Your task to perform on an android device: Open the phone app and click the voicemail tab. Image 0: 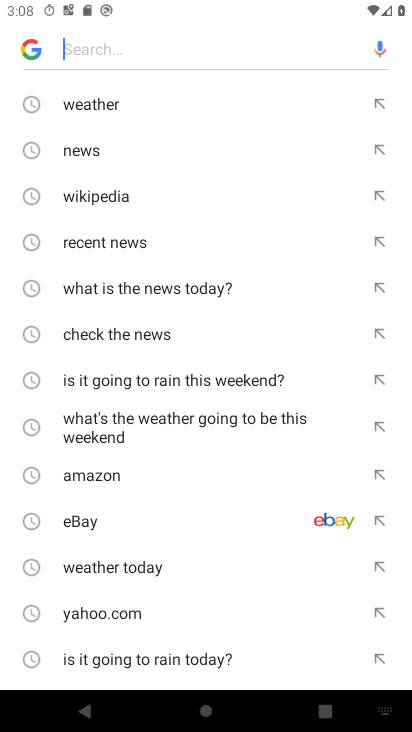
Step 0: press home button
Your task to perform on an android device: Open the phone app and click the voicemail tab. Image 1: 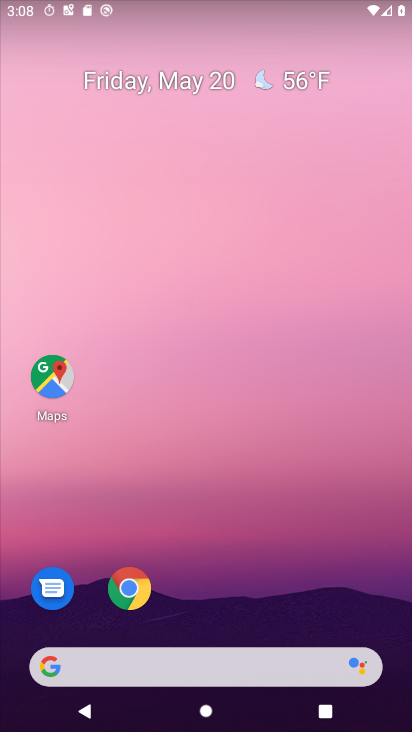
Step 1: drag from (67, 419) to (225, 175)
Your task to perform on an android device: Open the phone app and click the voicemail tab. Image 2: 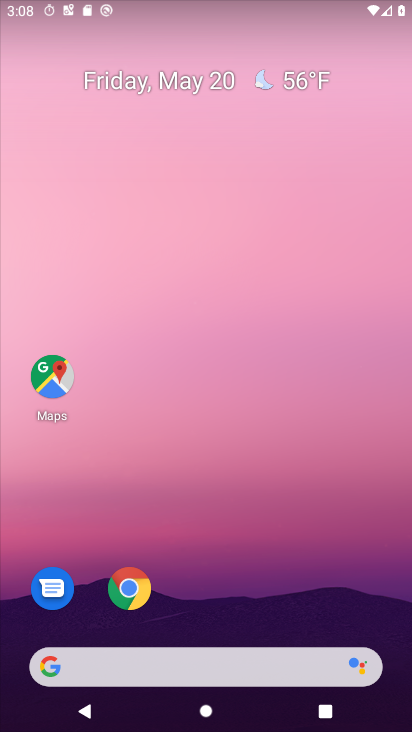
Step 2: drag from (69, 496) to (226, 272)
Your task to perform on an android device: Open the phone app and click the voicemail tab. Image 3: 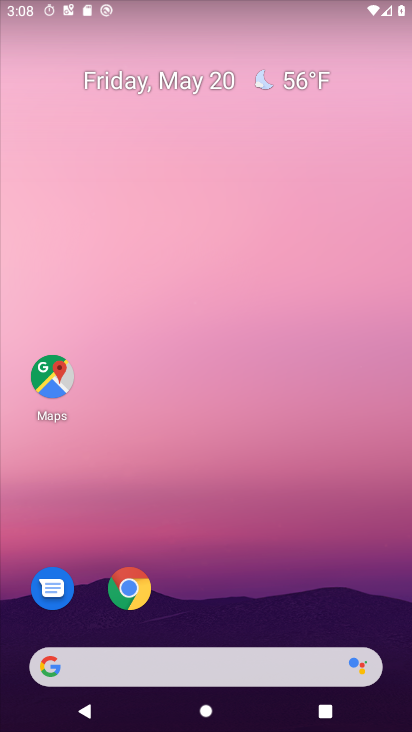
Step 3: drag from (56, 514) to (211, 194)
Your task to perform on an android device: Open the phone app and click the voicemail tab. Image 4: 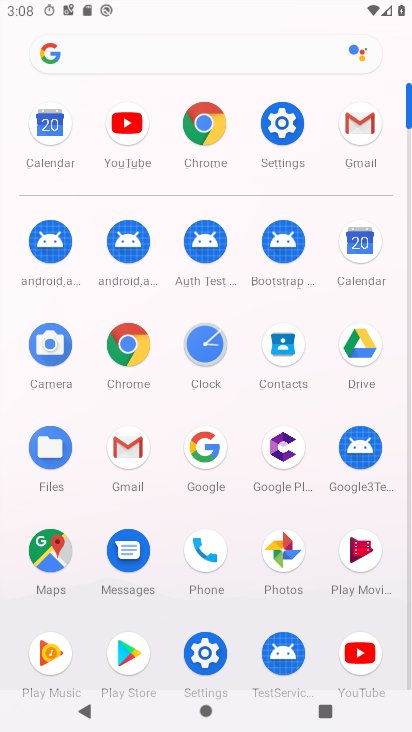
Step 4: click (218, 539)
Your task to perform on an android device: Open the phone app and click the voicemail tab. Image 5: 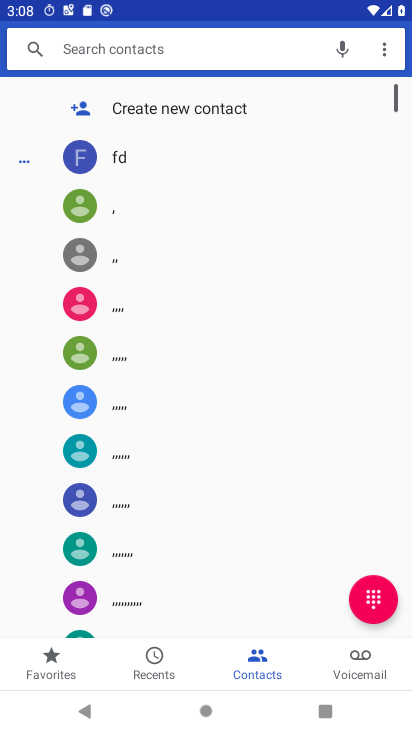
Step 5: click (360, 660)
Your task to perform on an android device: Open the phone app and click the voicemail tab. Image 6: 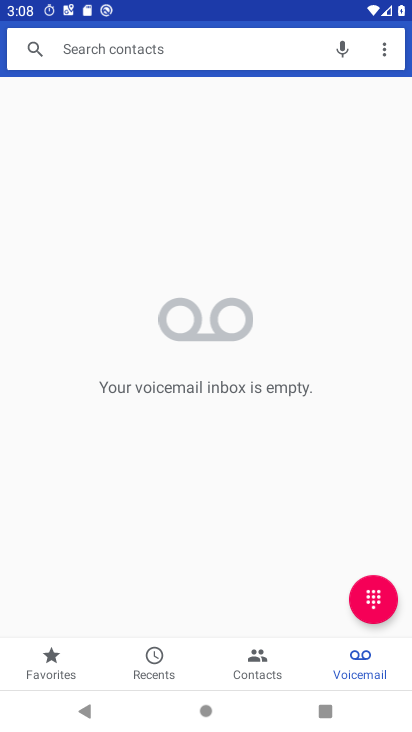
Step 6: task complete